Your task to perform on an android device: toggle data saver in the chrome app Image 0: 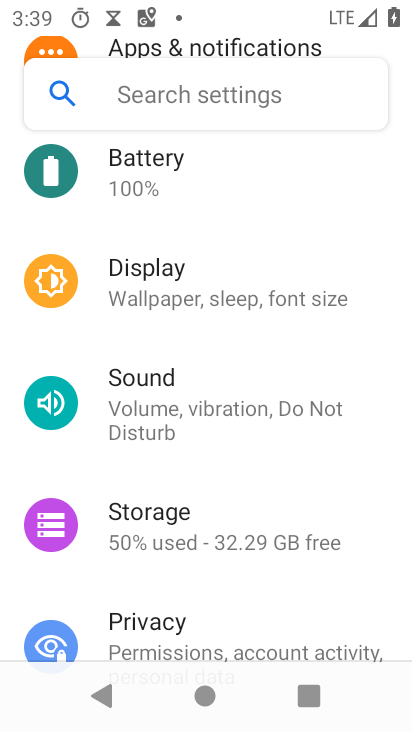
Step 0: press home button
Your task to perform on an android device: toggle data saver in the chrome app Image 1: 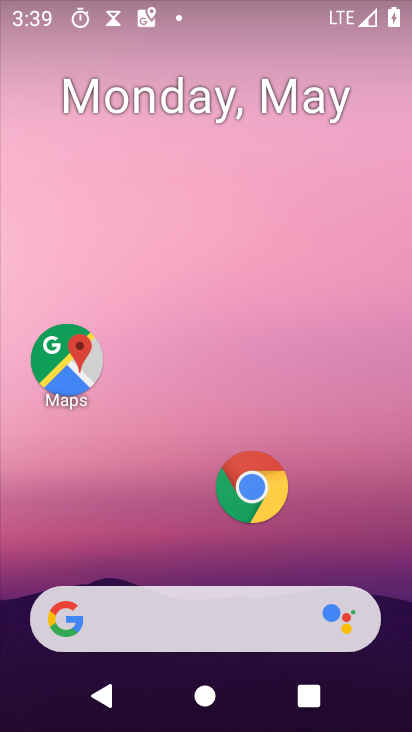
Step 1: click (257, 481)
Your task to perform on an android device: toggle data saver in the chrome app Image 2: 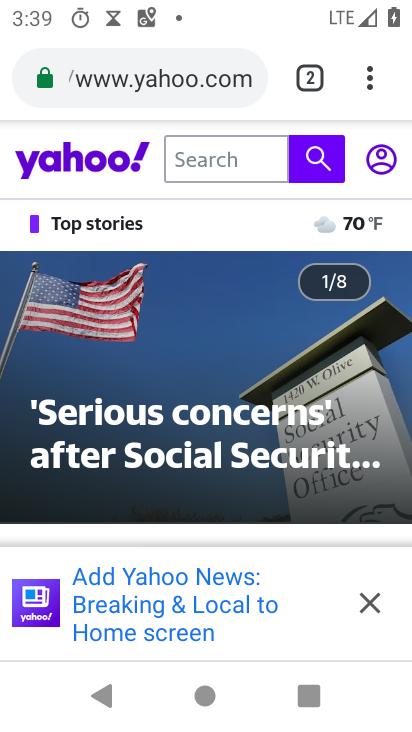
Step 2: click (364, 79)
Your task to perform on an android device: toggle data saver in the chrome app Image 3: 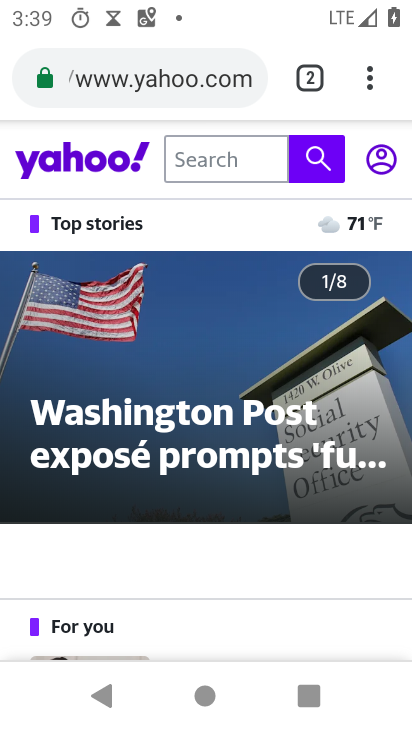
Step 3: click (367, 83)
Your task to perform on an android device: toggle data saver in the chrome app Image 4: 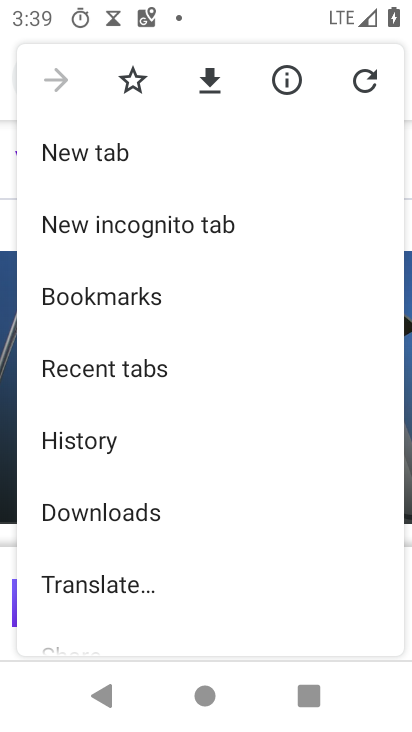
Step 4: drag from (168, 617) to (255, 268)
Your task to perform on an android device: toggle data saver in the chrome app Image 5: 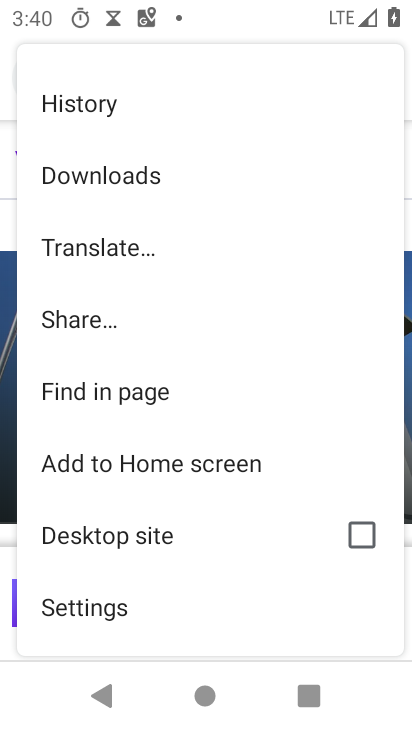
Step 5: click (146, 599)
Your task to perform on an android device: toggle data saver in the chrome app Image 6: 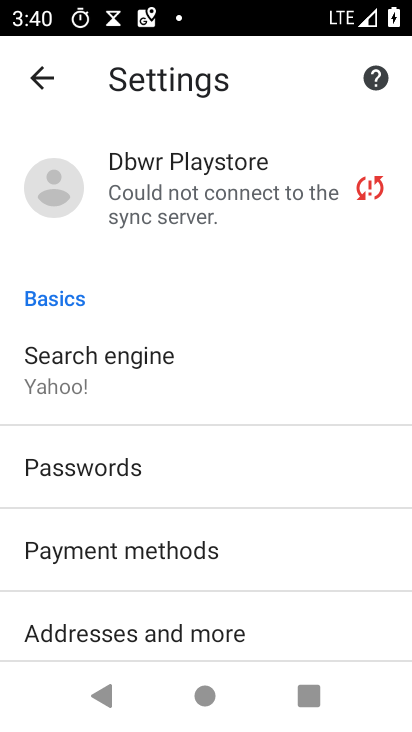
Step 6: drag from (187, 616) to (178, 195)
Your task to perform on an android device: toggle data saver in the chrome app Image 7: 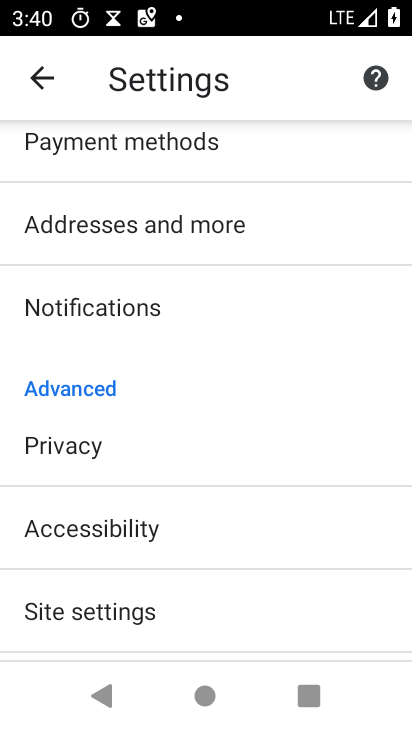
Step 7: drag from (113, 612) to (153, 310)
Your task to perform on an android device: toggle data saver in the chrome app Image 8: 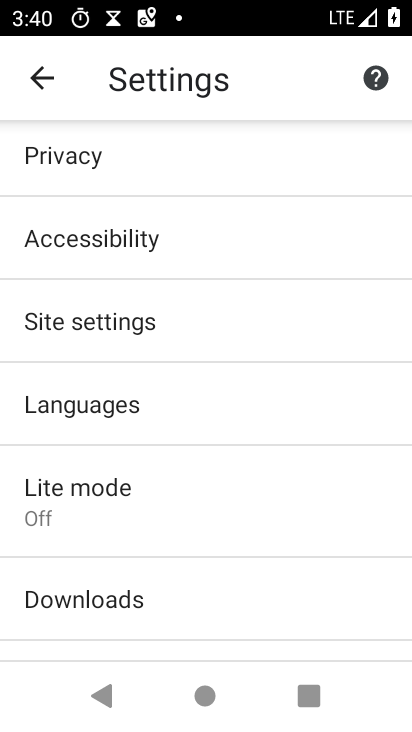
Step 8: click (133, 486)
Your task to perform on an android device: toggle data saver in the chrome app Image 9: 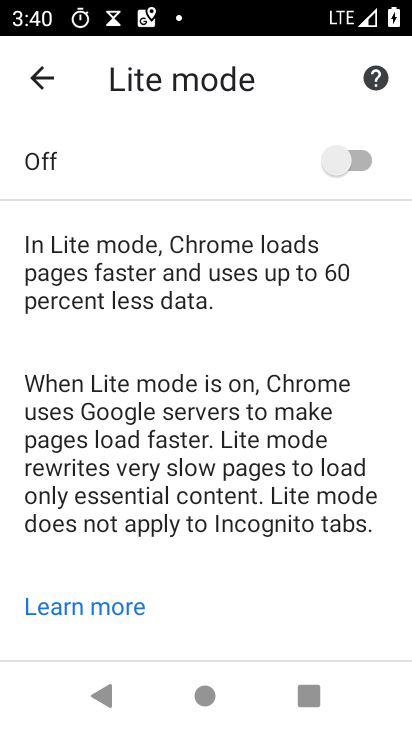
Step 9: click (350, 162)
Your task to perform on an android device: toggle data saver in the chrome app Image 10: 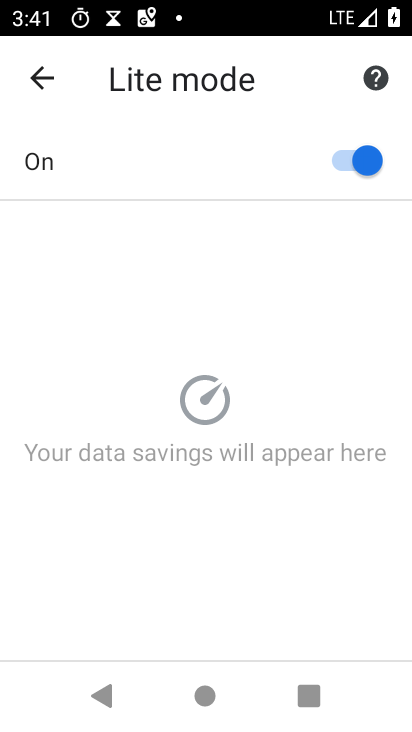
Step 10: task complete